Your task to perform on an android device: Go to accessibility settings Image 0: 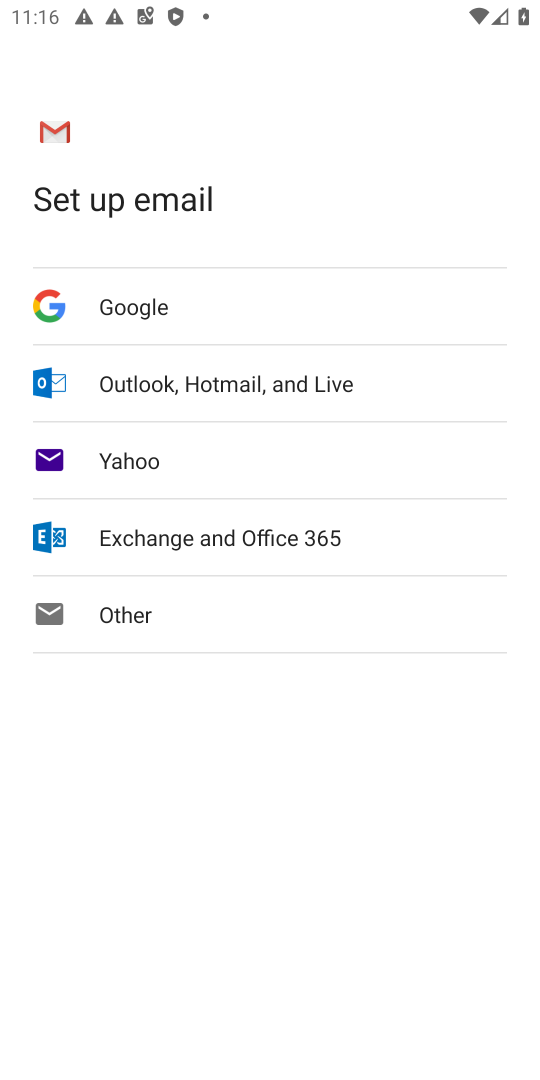
Step 0: press home button
Your task to perform on an android device: Go to accessibility settings Image 1: 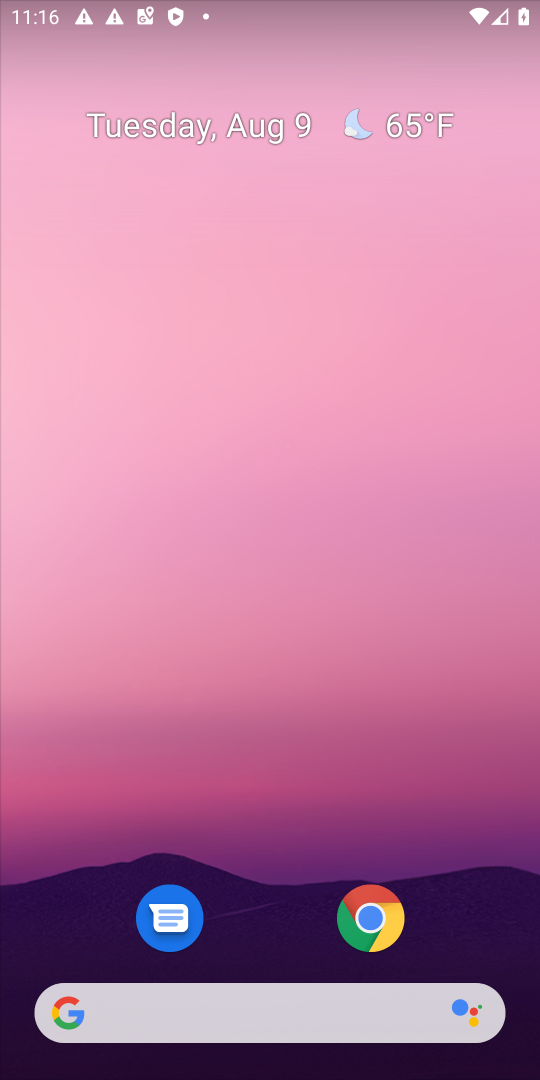
Step 1: drag from (257, 906) to (214, 301)
Your task to perform on an android device: Go to accessibility settings Image 2: 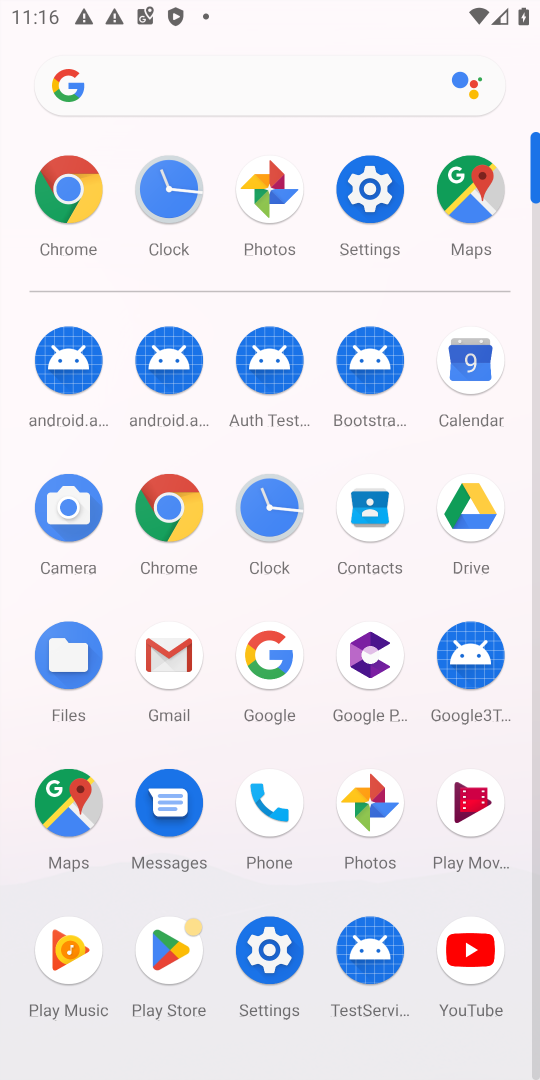
Step 2: click (258, 955)
Your task to perform on an android device: Go to accessibility settings Image 3: 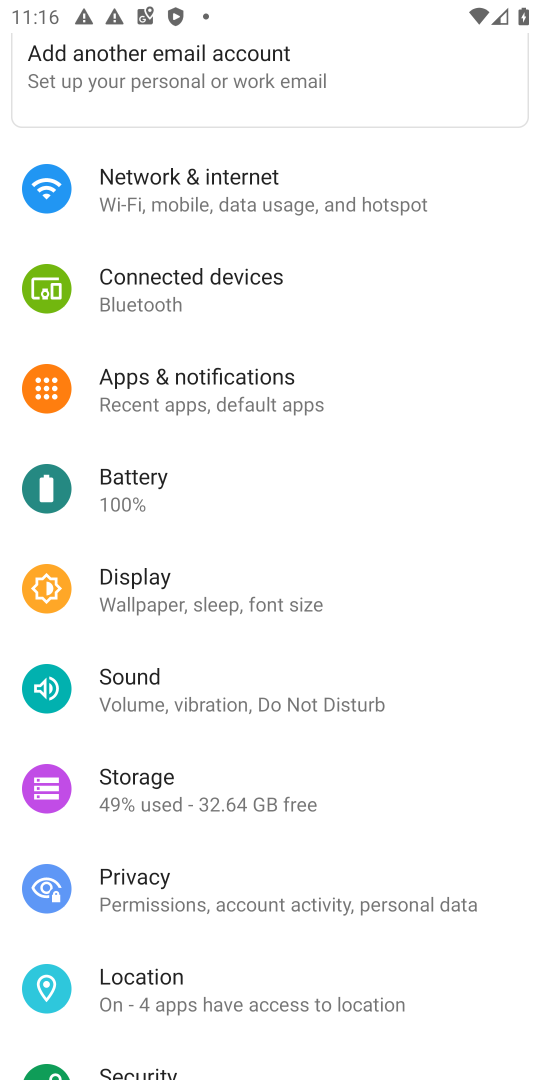
Step 3: drag from (359, 960) to (358, 389)
Your task to perform on an android device: Go to accessibility settings Image 4: 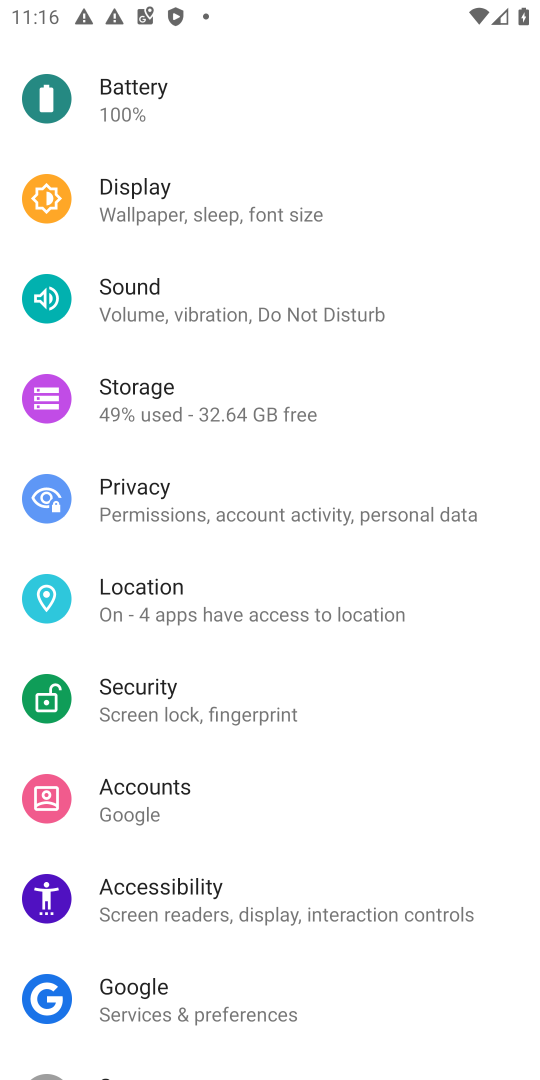
Step 4: click (167, 894)
Your task to perform on an android device: Go to accessibility settings Image 5: 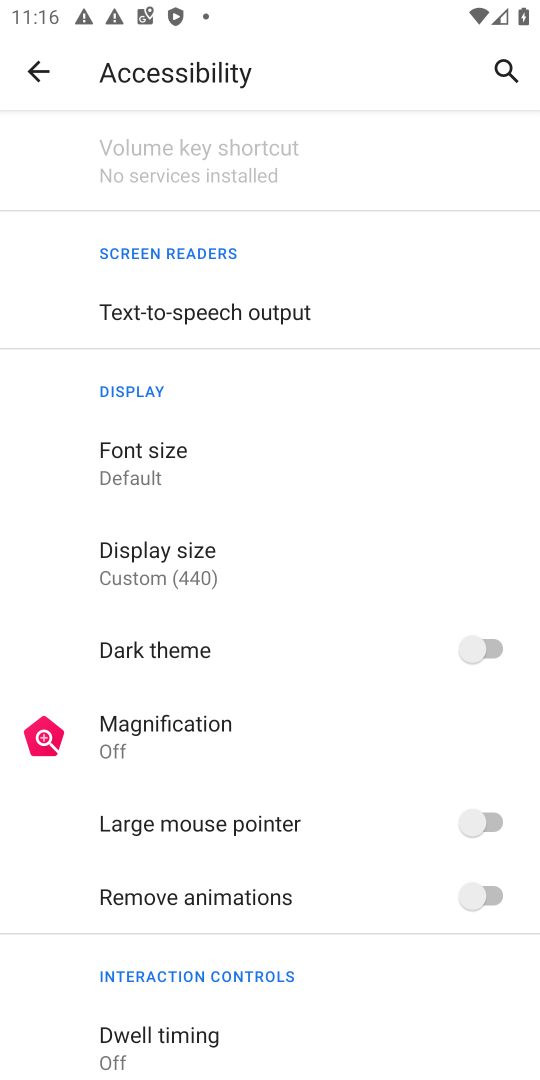
Step 5: task complete